Your task to perform on an android device: toggle javascript in the chrome app Image 0: 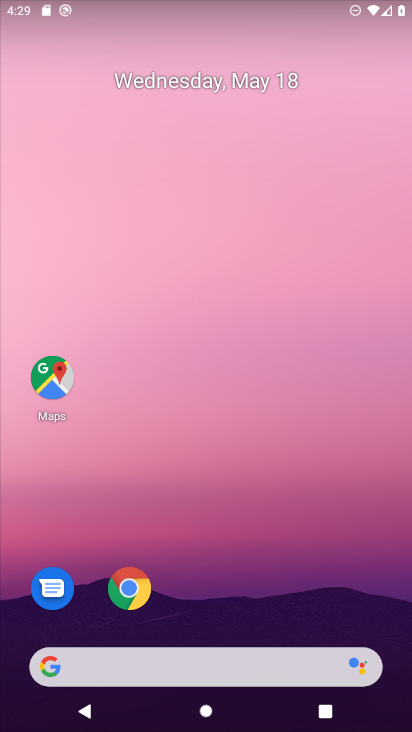
Step 0: click (139, 587)
Your task to perform on an android device: toggle javascript in the chrome app Image 1: 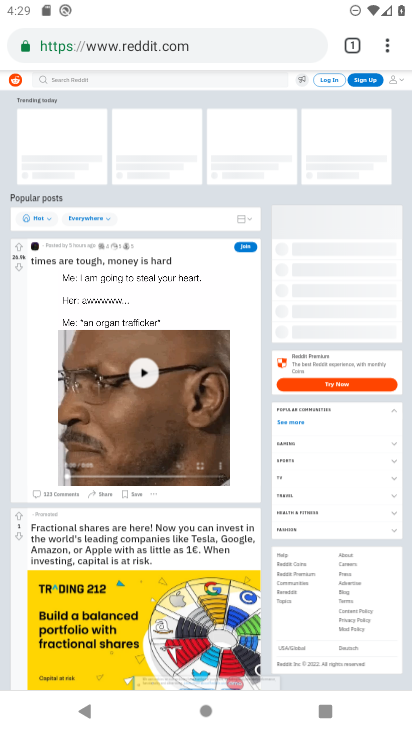
Step 1: click (387, 52)
Your task to perform on an android device: toggle javascript in the chrome app Image 2: 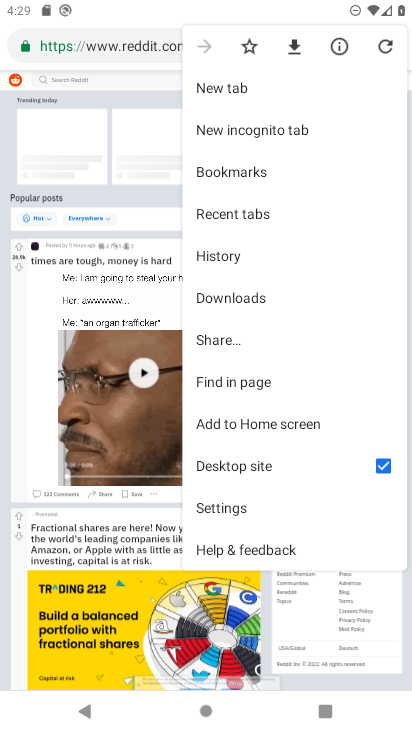
Step 2: click (235, 519)
Your task to perform on an android device: toggle javascript in the chrome app Image 3: 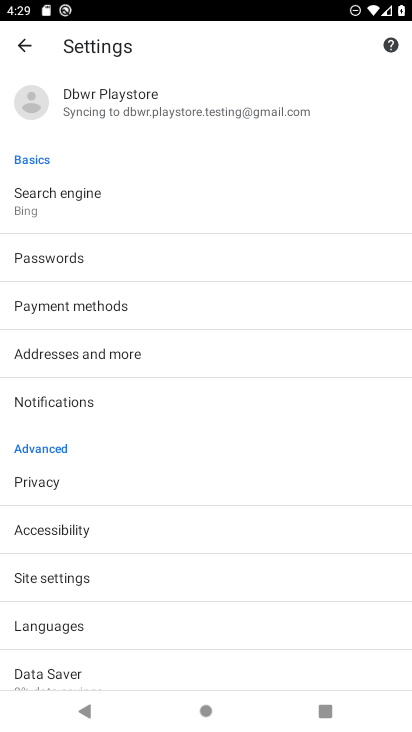
Step 3: click (130, 566)
Your task to perform on an android device: toggle javascript in the chrome app Image 4: 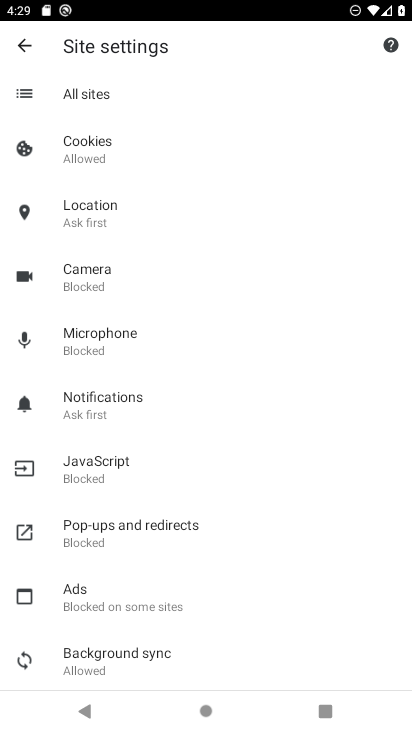
Step 4: click (103, 486)
Your task to perform on an android device: toggle javascript in the chrome app Image 5: 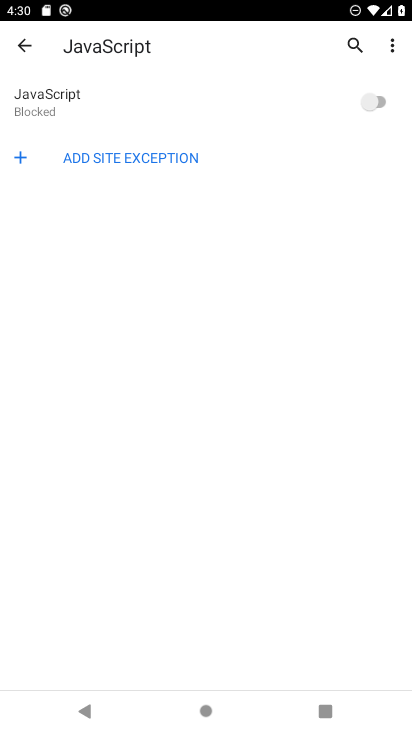
Step 5: click (378, 94)
Your task to perform on an android device: toggle javascript in the chrome app Image 6: 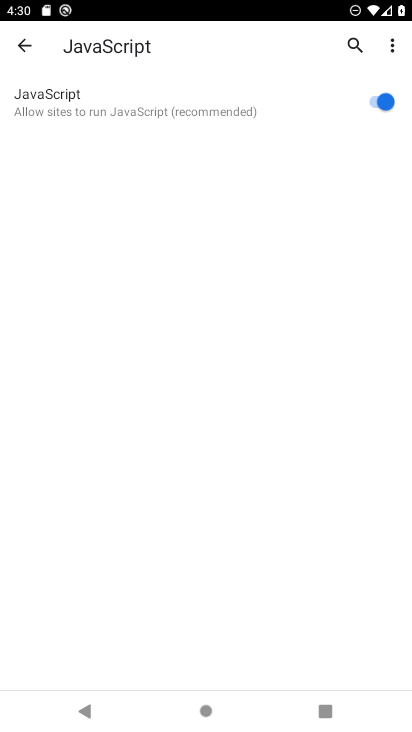
Step 6: task complete